Your task to perform on an android device: toggle show notifications on the lock screen Image 0: 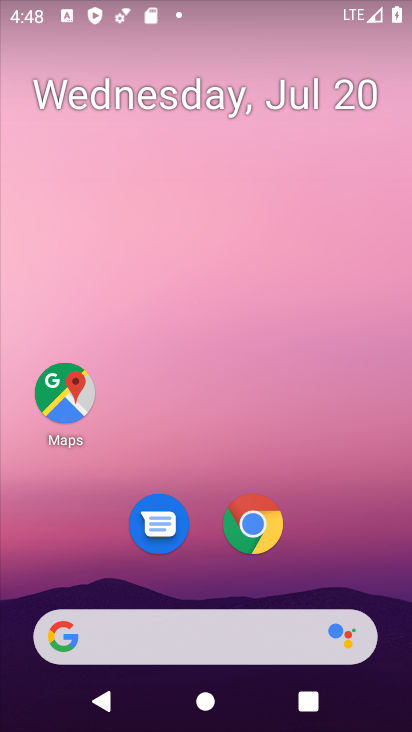
Step 0: drag from (341, 565) to (354, 63)
Your task to perform on an android device: toggle show notifications on the lock screen Image 1: 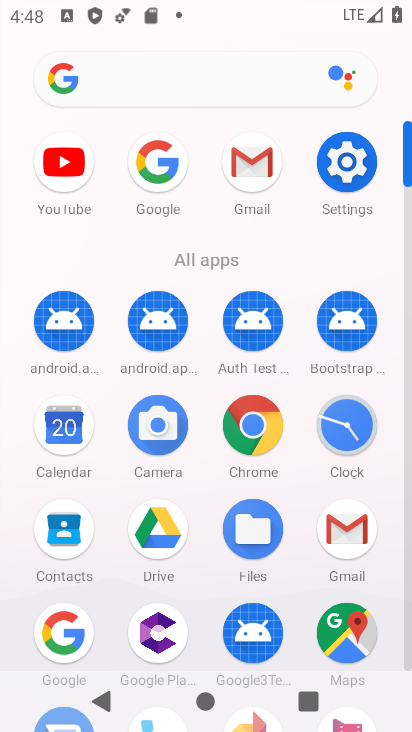
Step 1: click (338, 147)
Your task to perform on an android device: toggle show notifications on the lock screen Image 2: 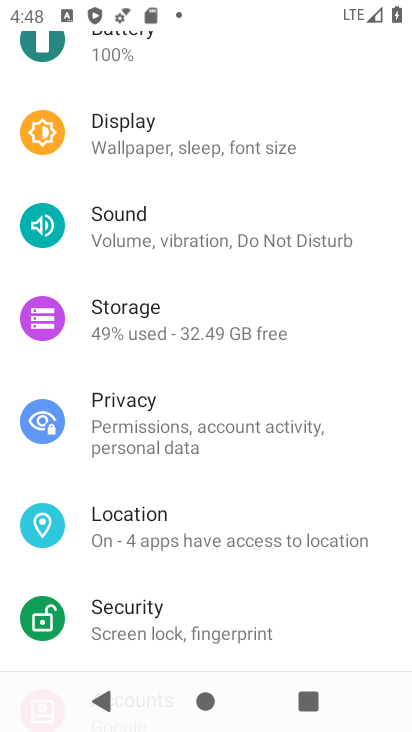
Step 2: drag from (281, 161) to (225, 589)
Your task to perform on an android device: toggle show notifications on the lock screen Image 3: 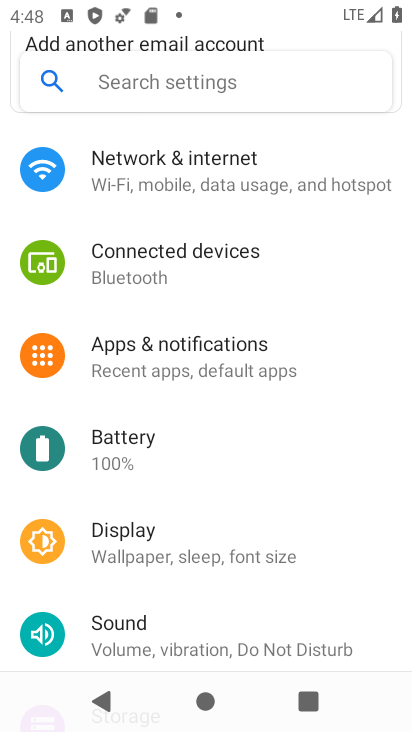
Step 3: click (263, 353)
Your task to perform on an android device: toggle show notifications on the lock screen Image 4: 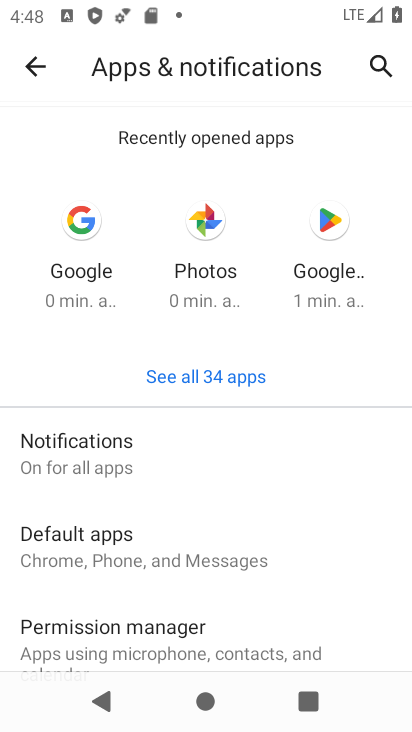
Step 4: click (158, 444)
Your task to perform on an android device: toggle show notifications on the lock screen Image 5: 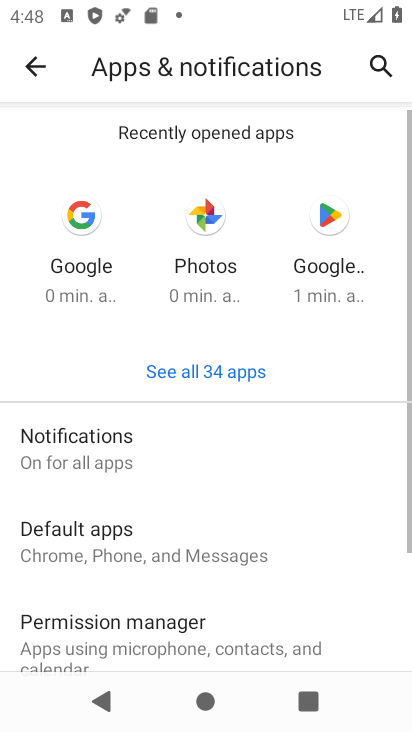
Step 5: click (110, 461)
Your task to perform on an android device: toggle show notifications on the lock screen Image 6: 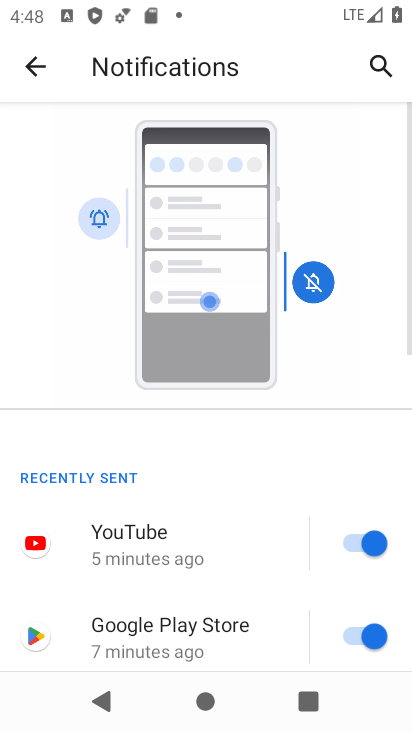
Step 6: drag from (217, 497) to (276, 6)
Your task to perform on an android device: toggle show notifications on the lock screen Image 7: 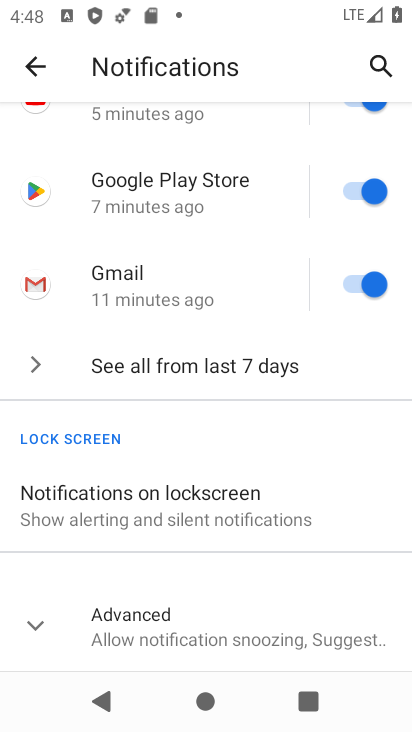
Step 7: click (165, 483)
Your task to perform on an android device: toggle show notifications on the lock screen Image 8: 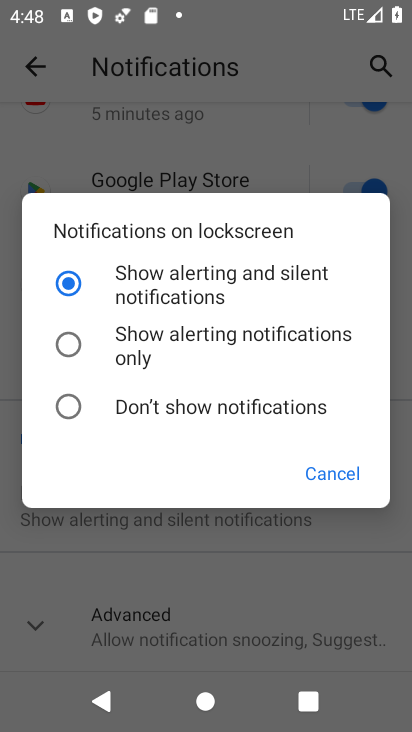
Step 8: click (66, 404)
Your task to perform on an android device: toggle show notifications on the lock screen Image 9: 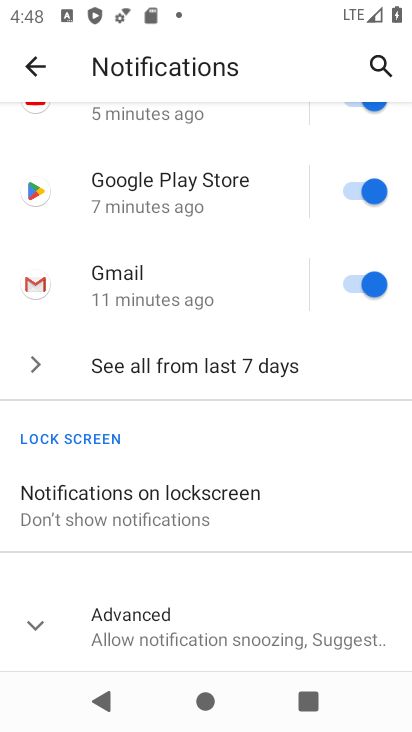
Step 9: task complete